Your task to perform on an android device: Empty the shopping cart on amazon. Add "macbook pro 13 inch" to the cart on amazon, then select checkout. Image 0: 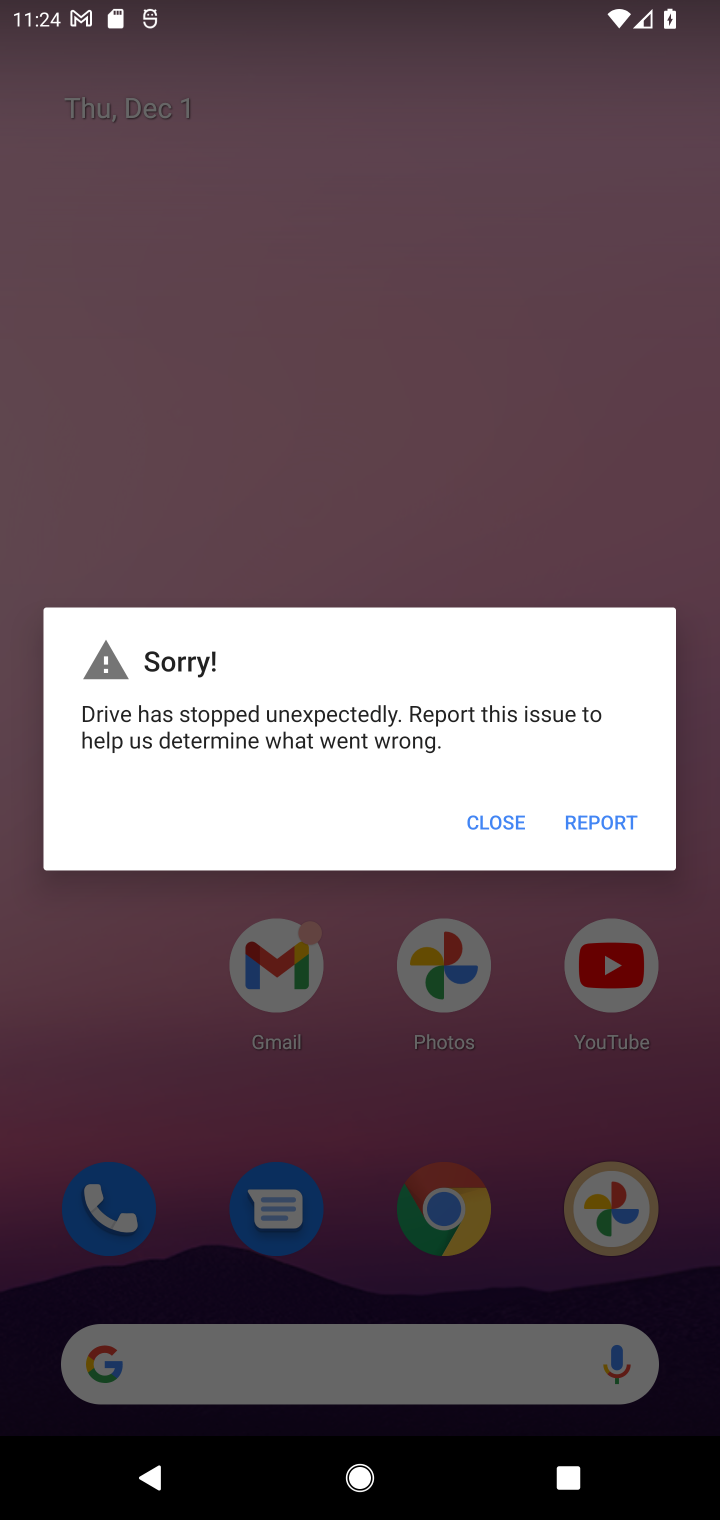
Step 0: task complete